Your task to perform on an android device: turn smart compose on in the gmail app Image 0: 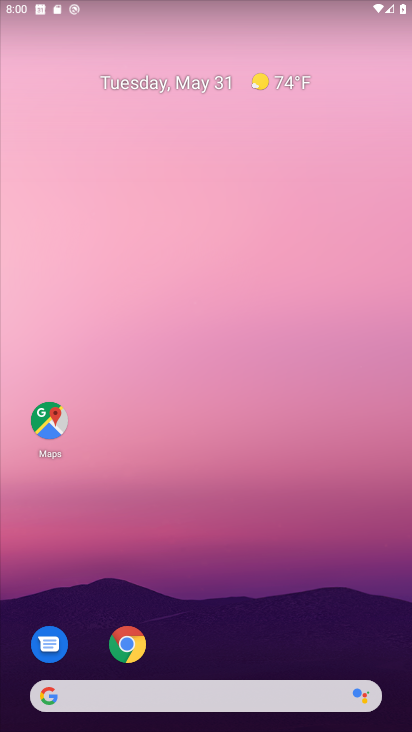
Step 0: press home button
Your task to perform on an android device: turn smart compose on in the gmail app Image 1: 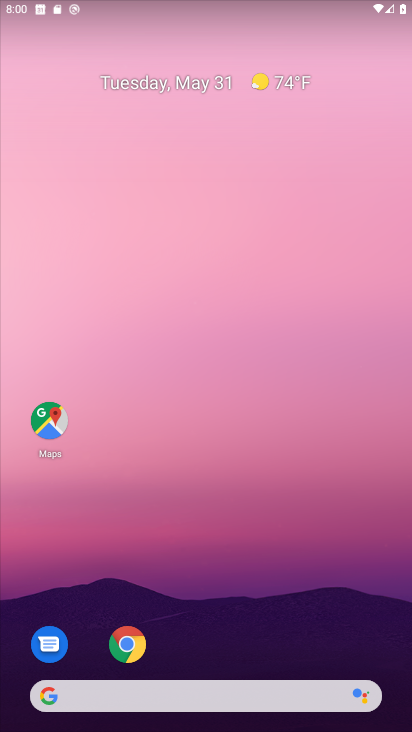
Step 1: drag from (218, 657) to (212, 184)
Your task to perform on an android device: turn smart compose on in the gmail app Image 2: 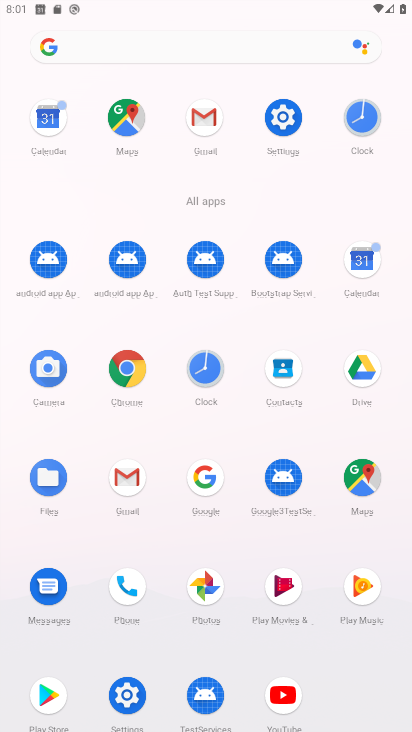
Step 2: click (127, 471)
Your task to perform on an android device: turn smart compose on in the gmail app Image 3: 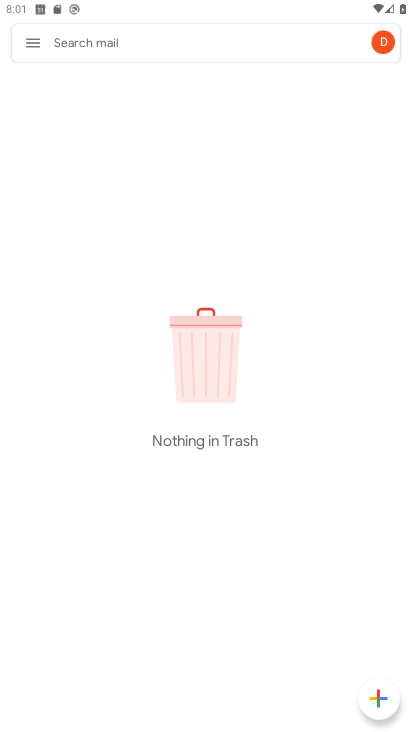
Step 3: click (36, 35)
Your task to perform on an android device: turn smart compose on in the gmail app Image 4: 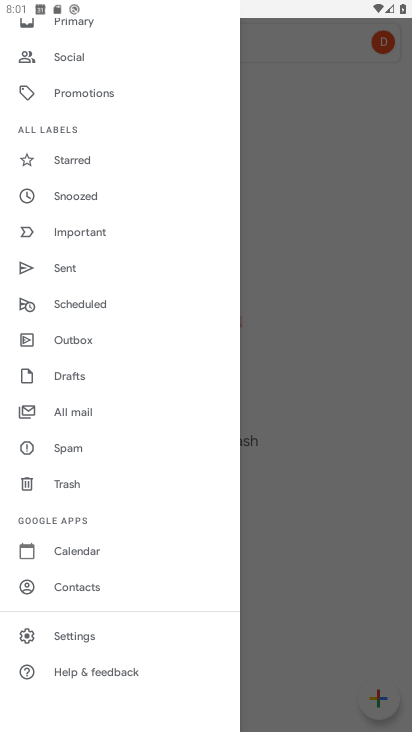
Step 4: click (100, 628)
Your task to perform on an android device: turn smart compose on in the gmail app Image 5: 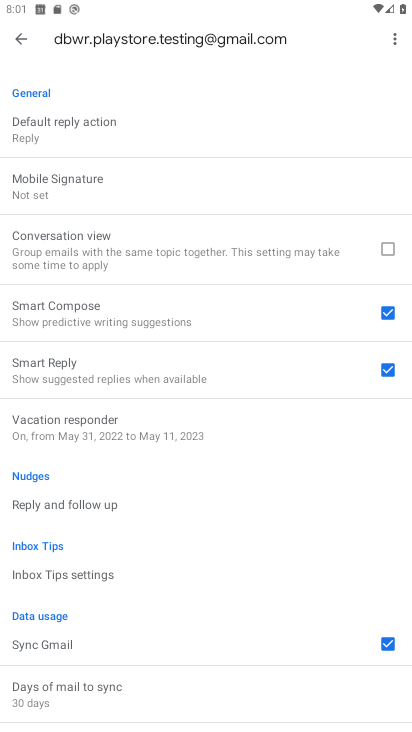
Step 5: task complete